Your task to perform on an android device: Open internet settings Image 0: 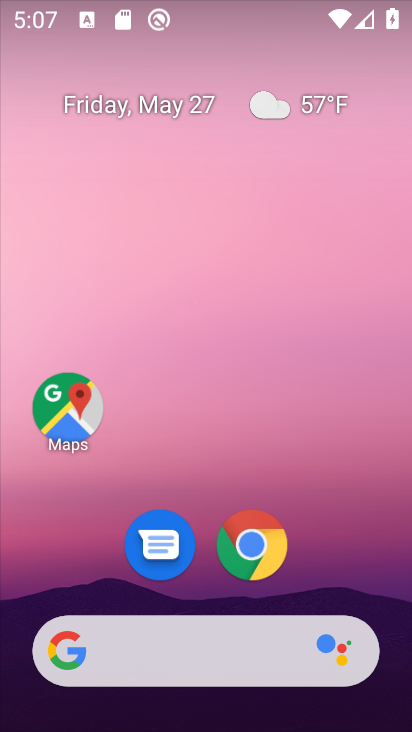
Step 0: drag from (397, 671) to (364, 267)
Your task to perform on an android device: Open internet settings Image 1: 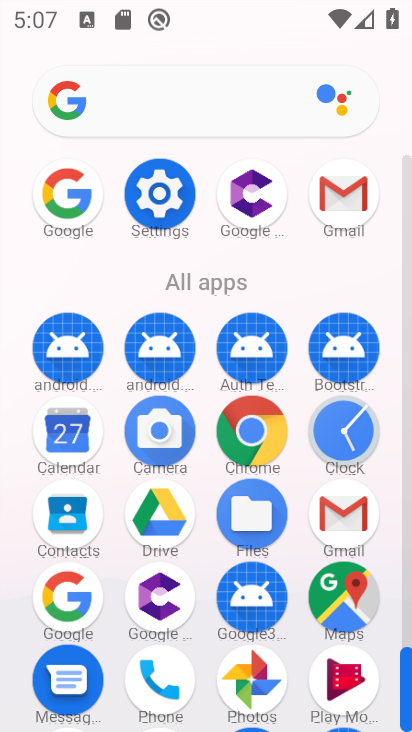
Step 1: click (164, 191)
Your task to perform on an android device: Open internet settings Image 2: 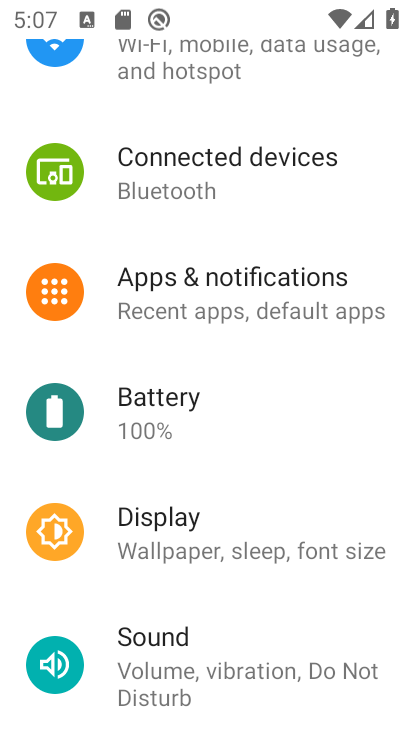
Step 2: drag from (296, 135) to (303, 565)
Your task to perform on an android device: Open internet settings Image 3: 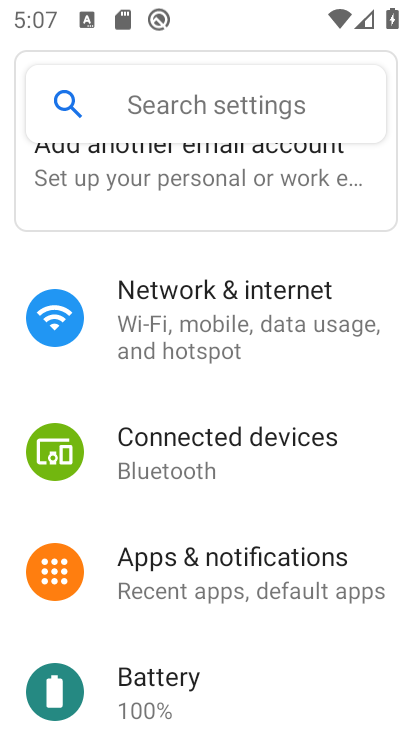
Step 3: drag from (244, 382) to (254, 498)
Your task to perform on an android device: Open internet settings Image 4: 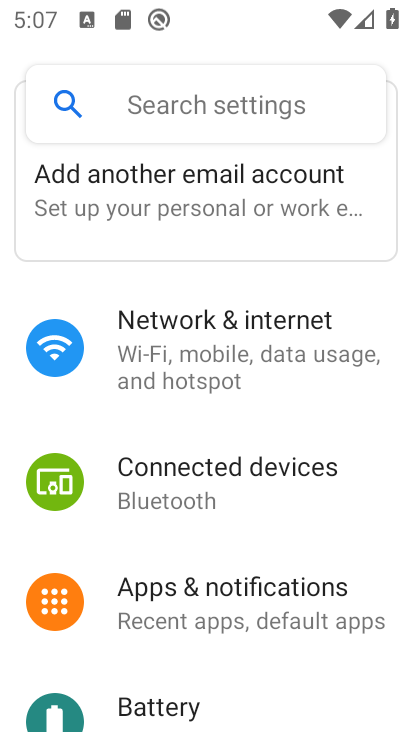
Step 4: click (160, 360)
Your task to perform on an android device: Open internet settings Image 5: 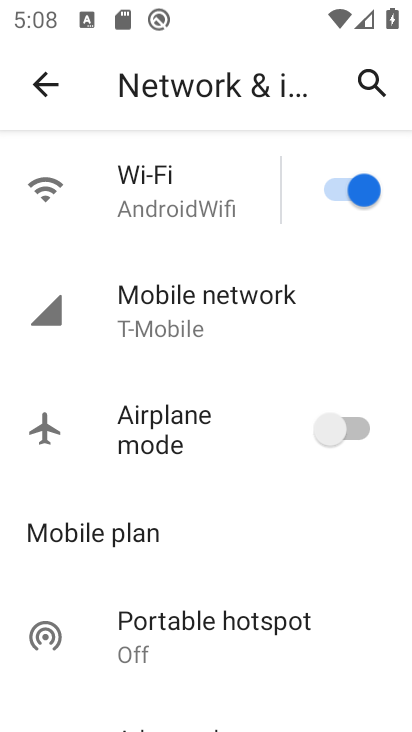
Step 5: drag from (215, 684) to (220, 435)
Your task to perform on an android device: Open internet settings Image 6: 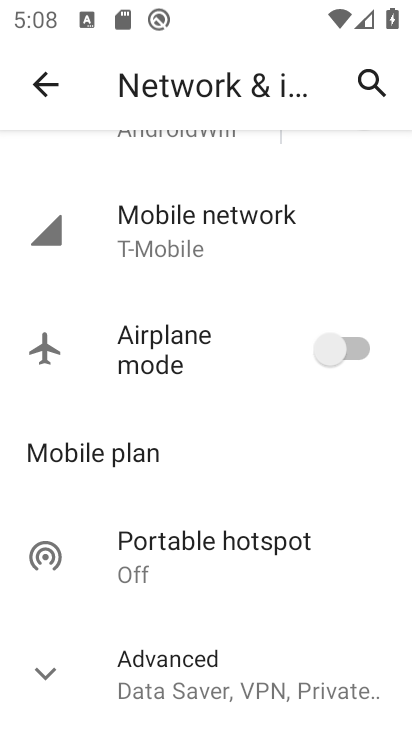
Step 6: drag from (196, 213) to (174, 616)
Your task to perform on an android device: Open internet settings Image 7: 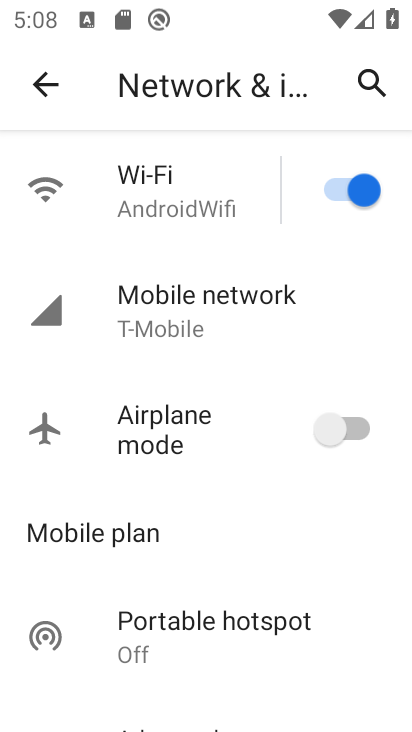
Step 7: click (119, 344)
Your task to perform on an android device: Open internet settings Image 8: 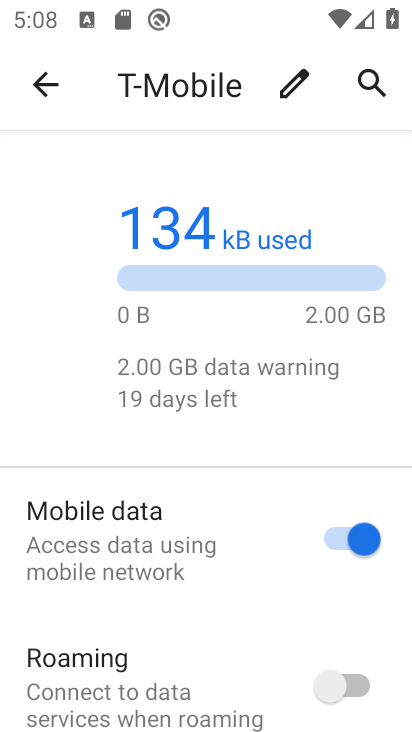
Step 8: task complete